Your task to perform on an android device: delete location history Image 0: 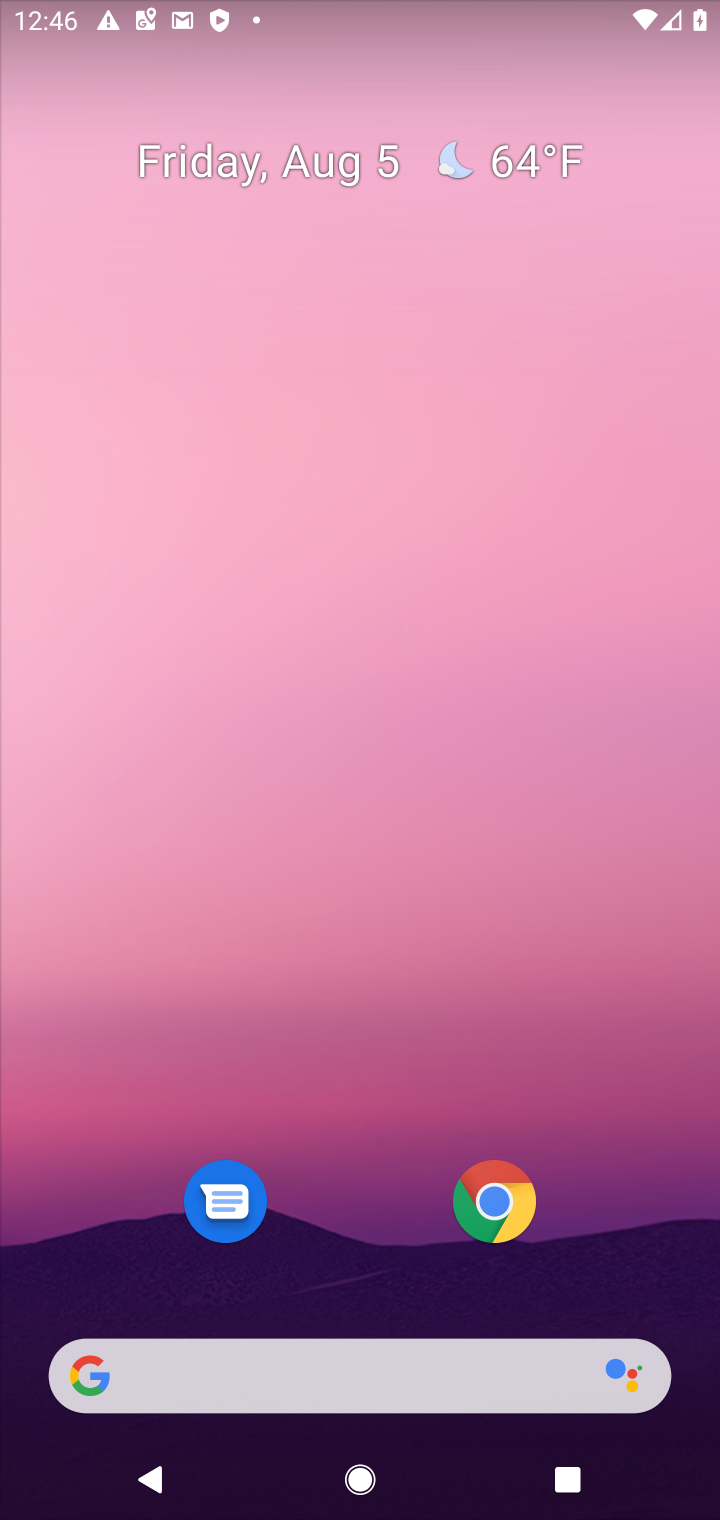
Step 0: drag from (642, 1278) to (601, 348)
Your task to perform on an android device: delete location history Image 1: 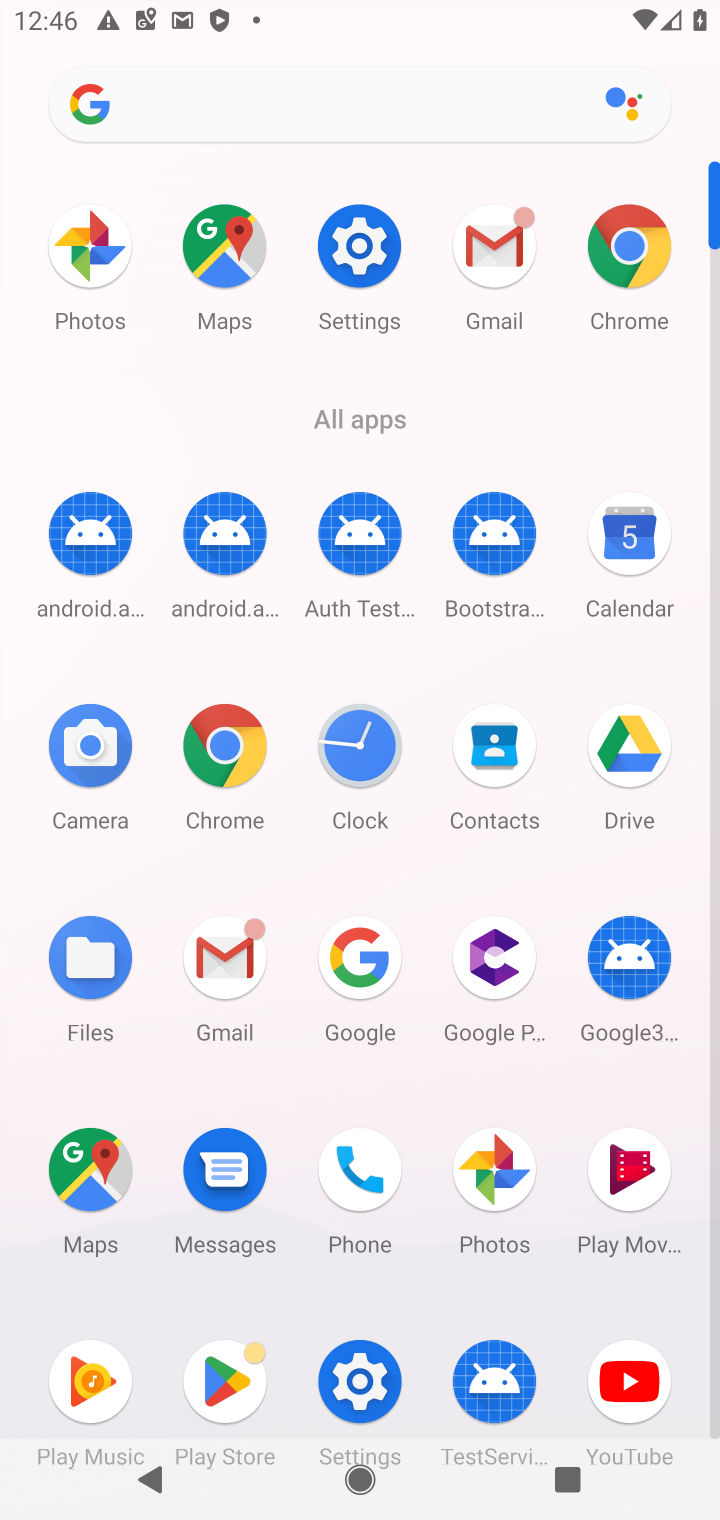
Step 1: click (372, 1366)
Your task to perform on an android device: delete location history Image 2: 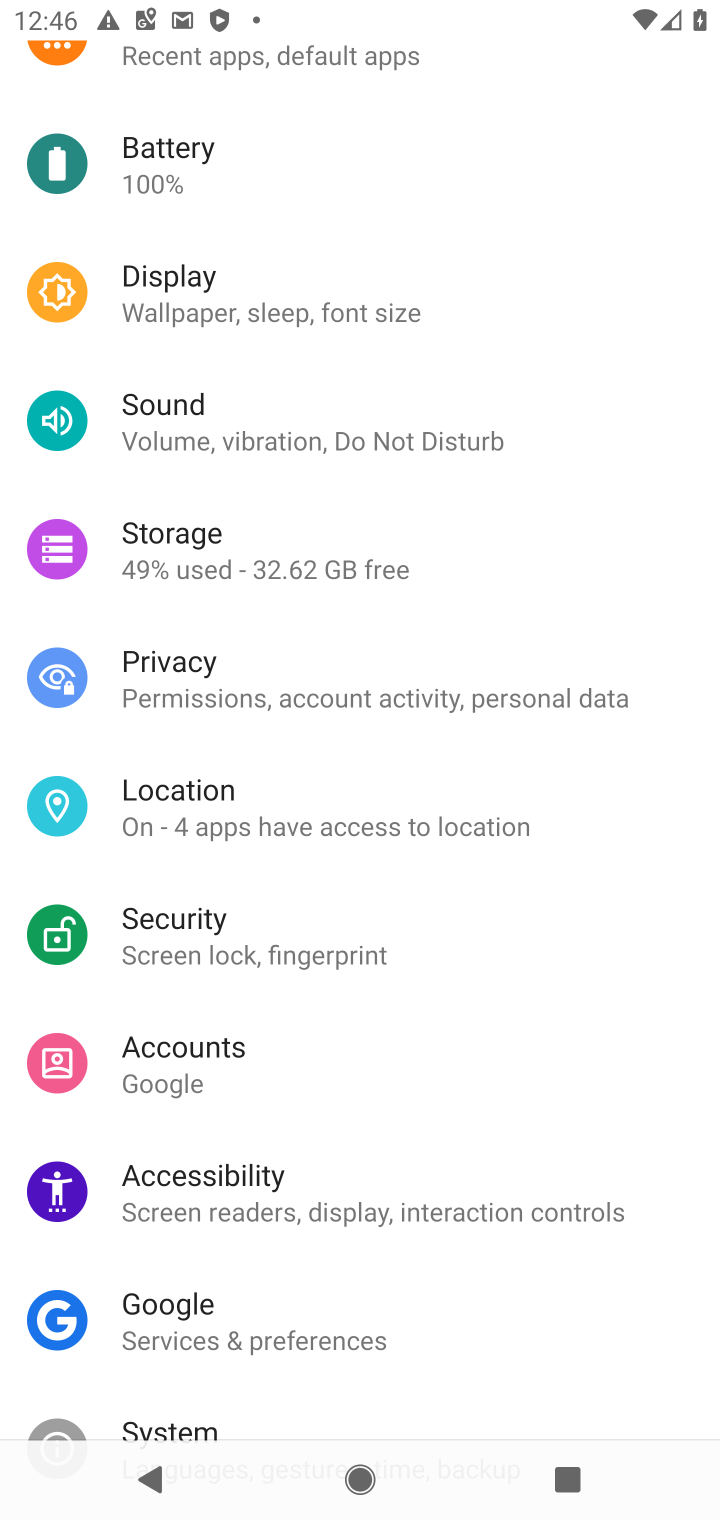
Step 2: click (313, 825)
Your task to perform on an android device: delete location history Image 3: 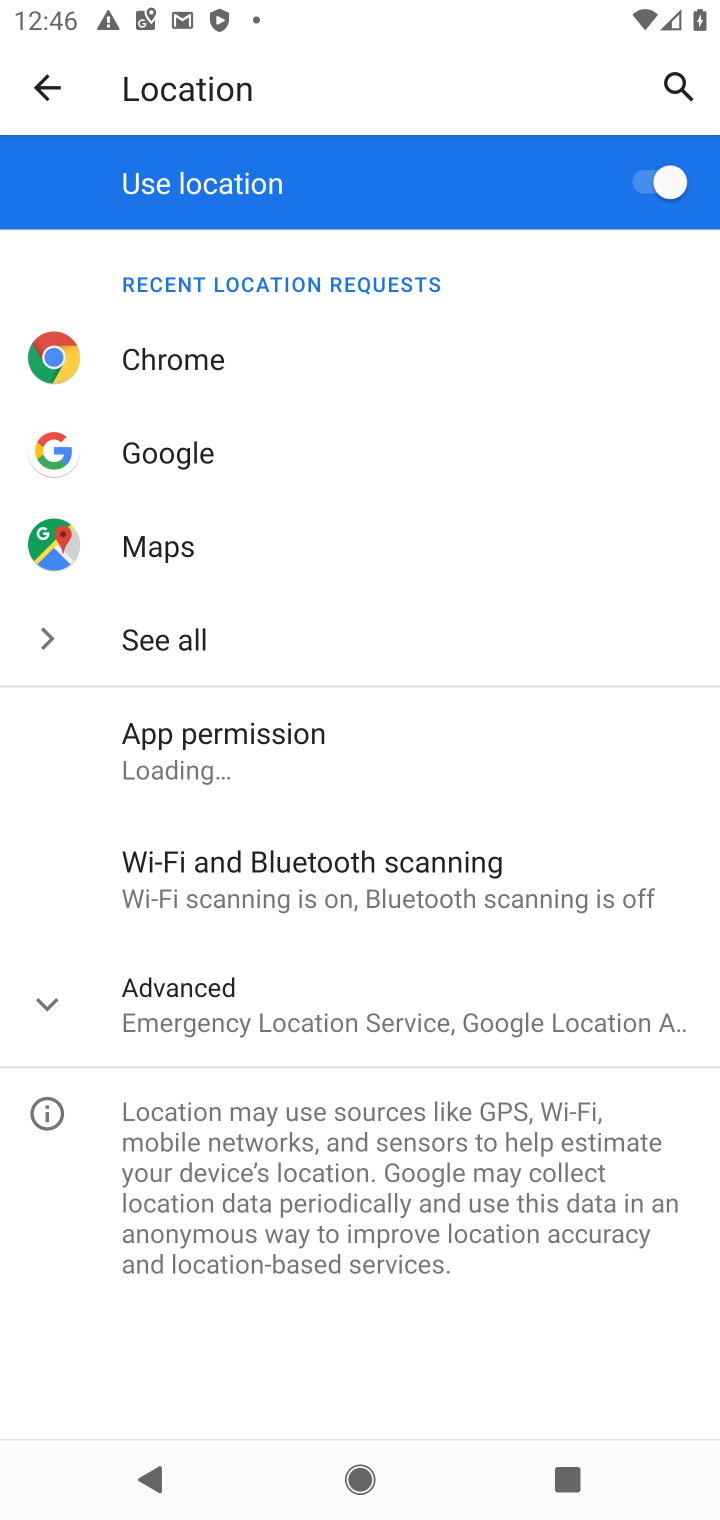
Step 3: click (279, 1023)
Your task to perform on an android device: delete location history Image 4: 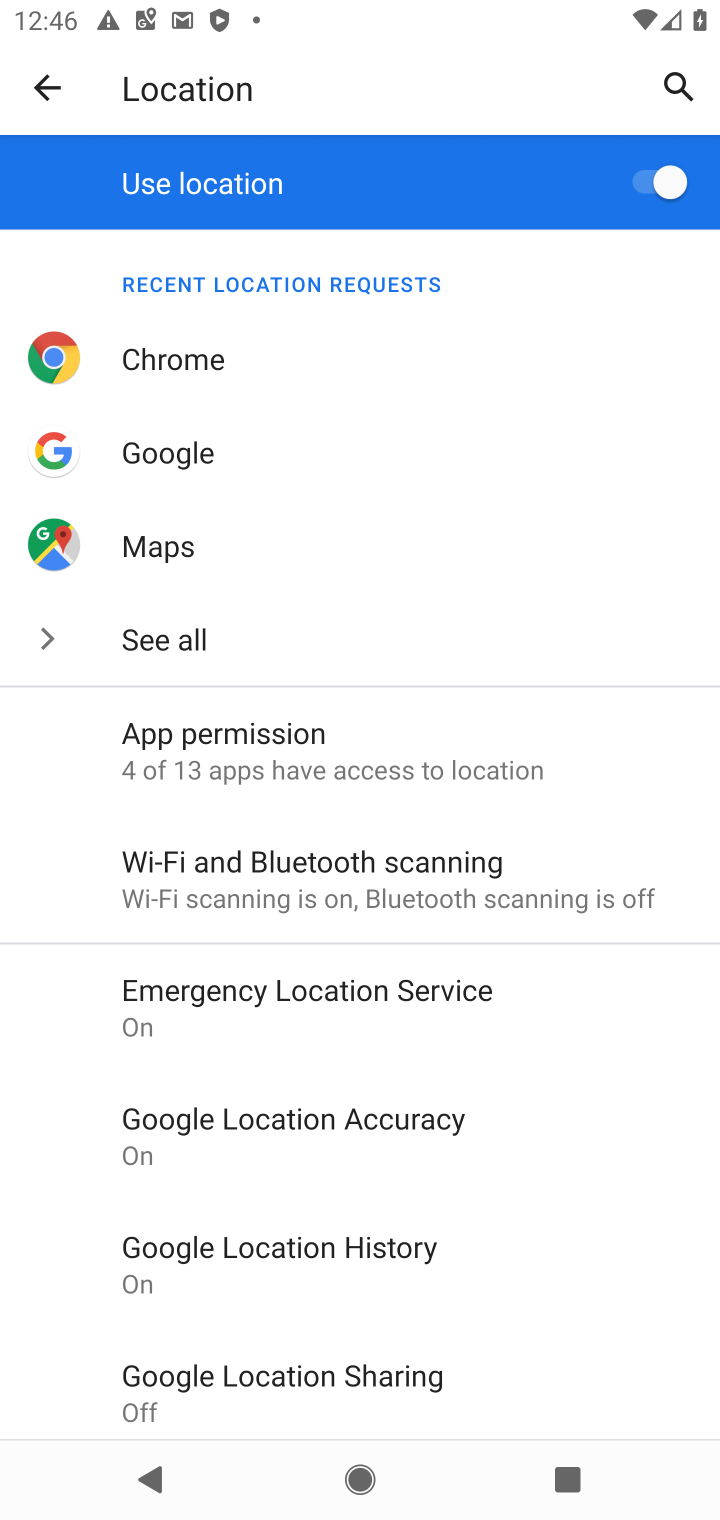
Step 4: click (440, 1241)
Your task to perform on an android device: delete location history Image 5: 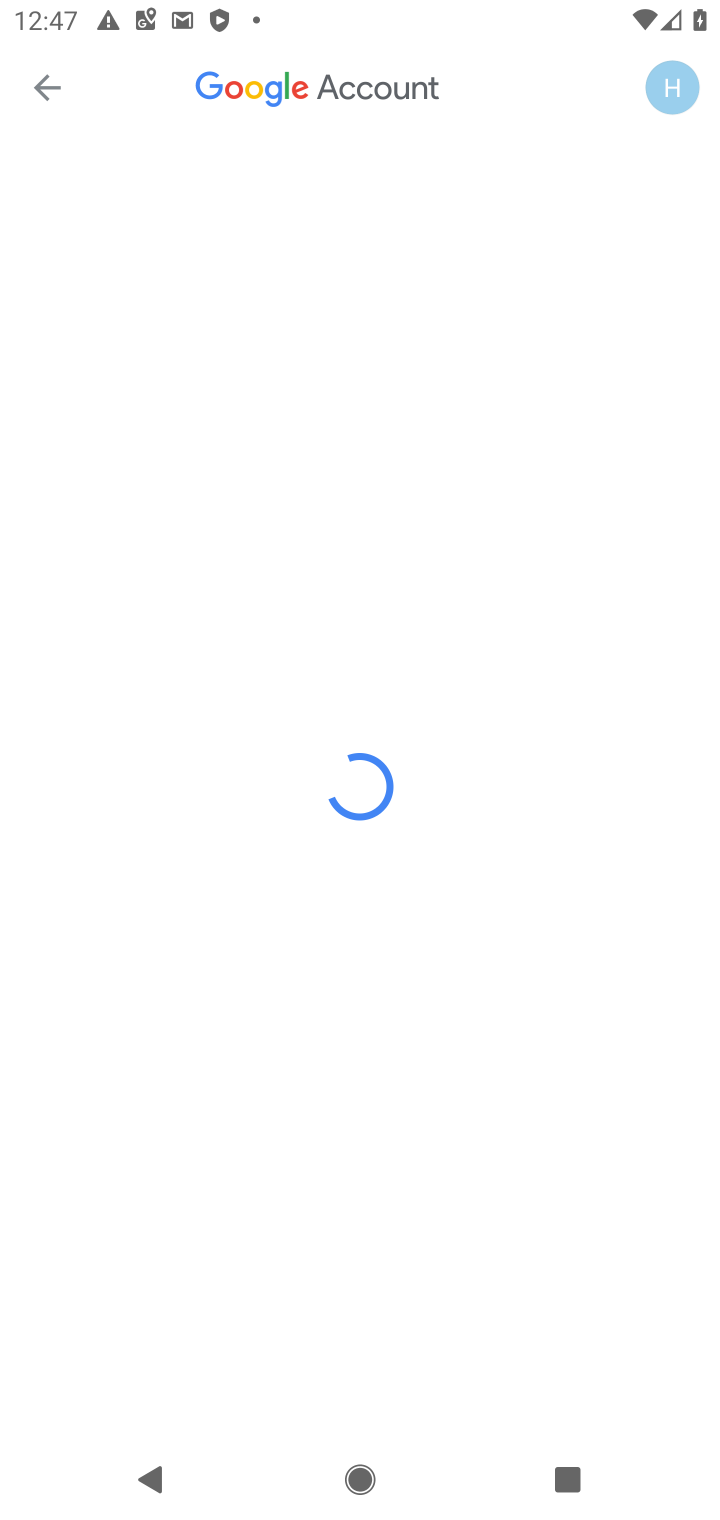
Step 5: click (440, 1253)
Your task to perform on an android device: delete location history Image 6: 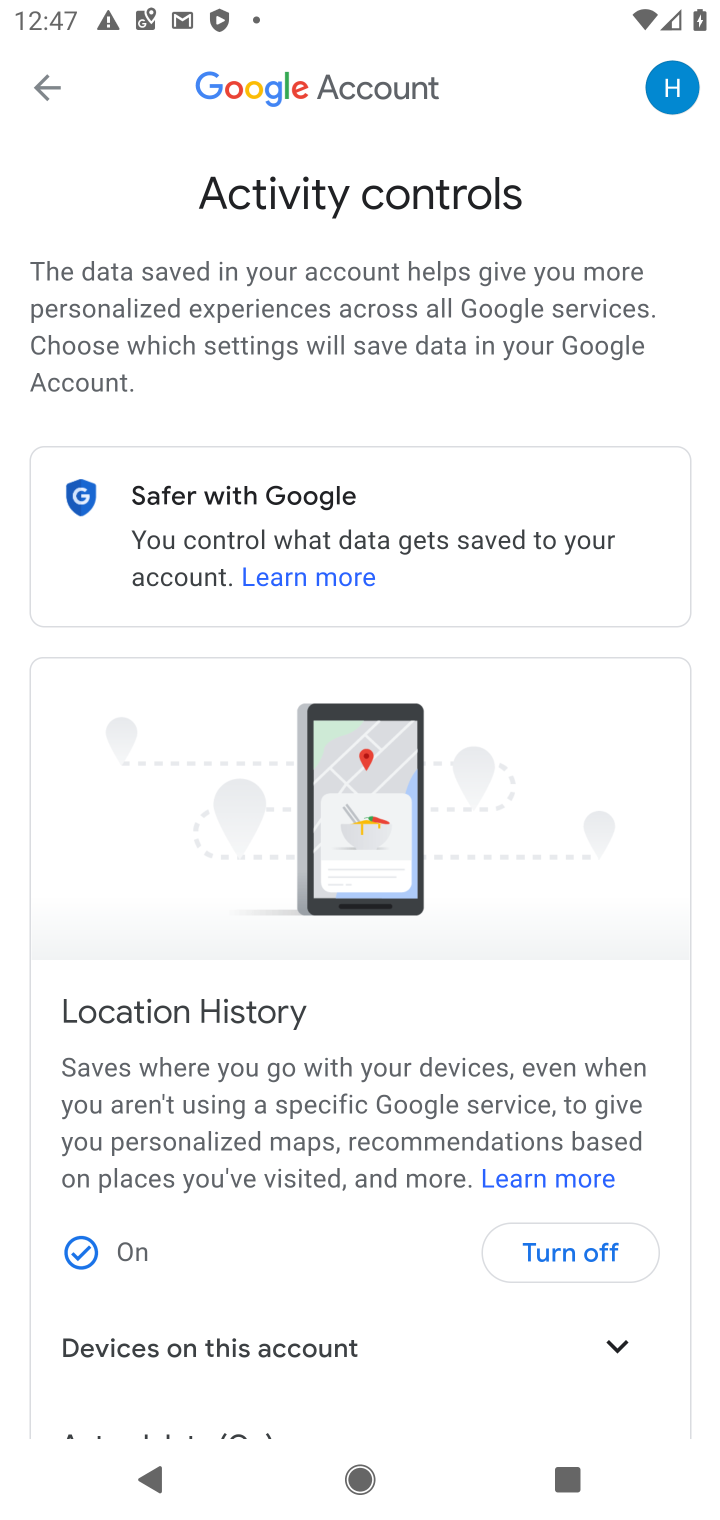
Step 6: drag from (385, 1312) to (469, 972)
Your task to perform on an android device: delete location history Image 7: 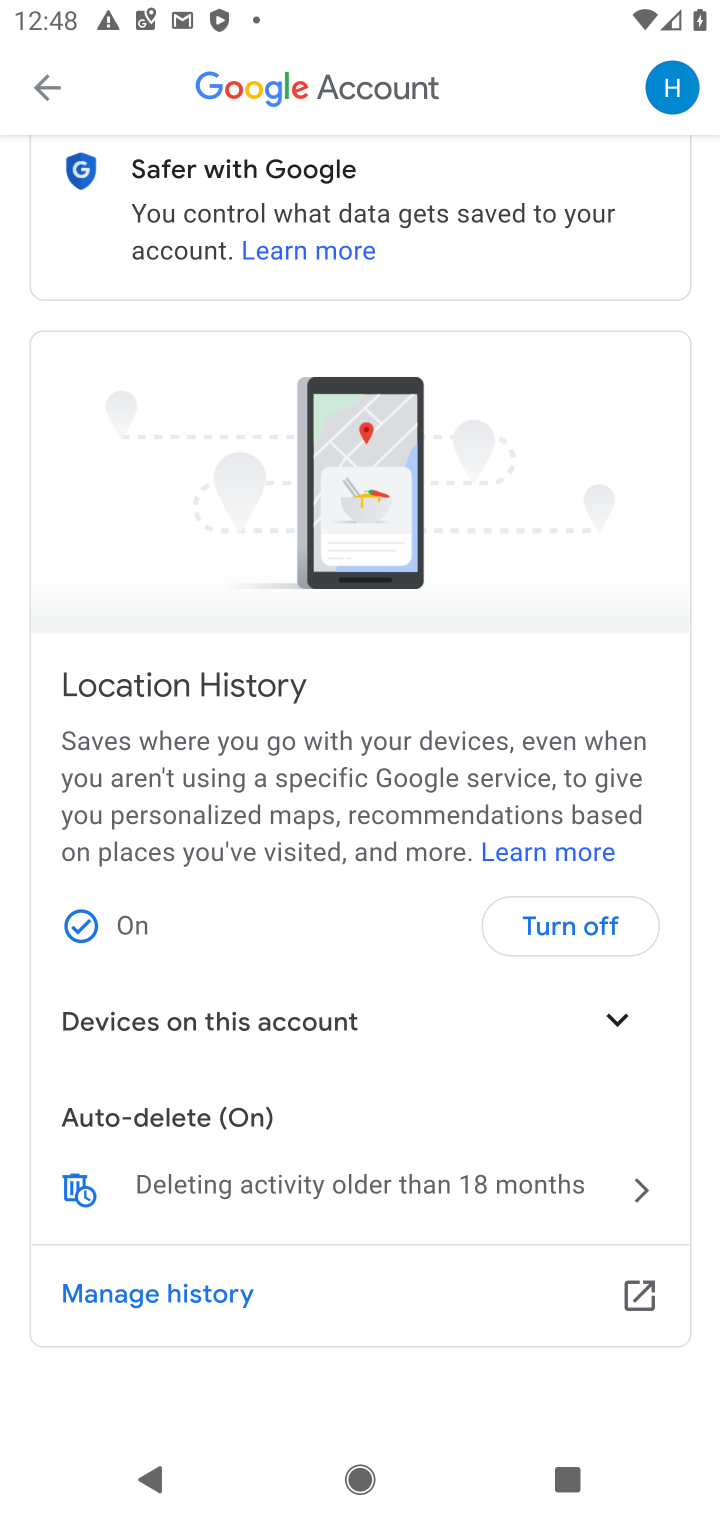
Step 7: click (180, 1292)
Your task to perform on an android device: delete location history Image 8: 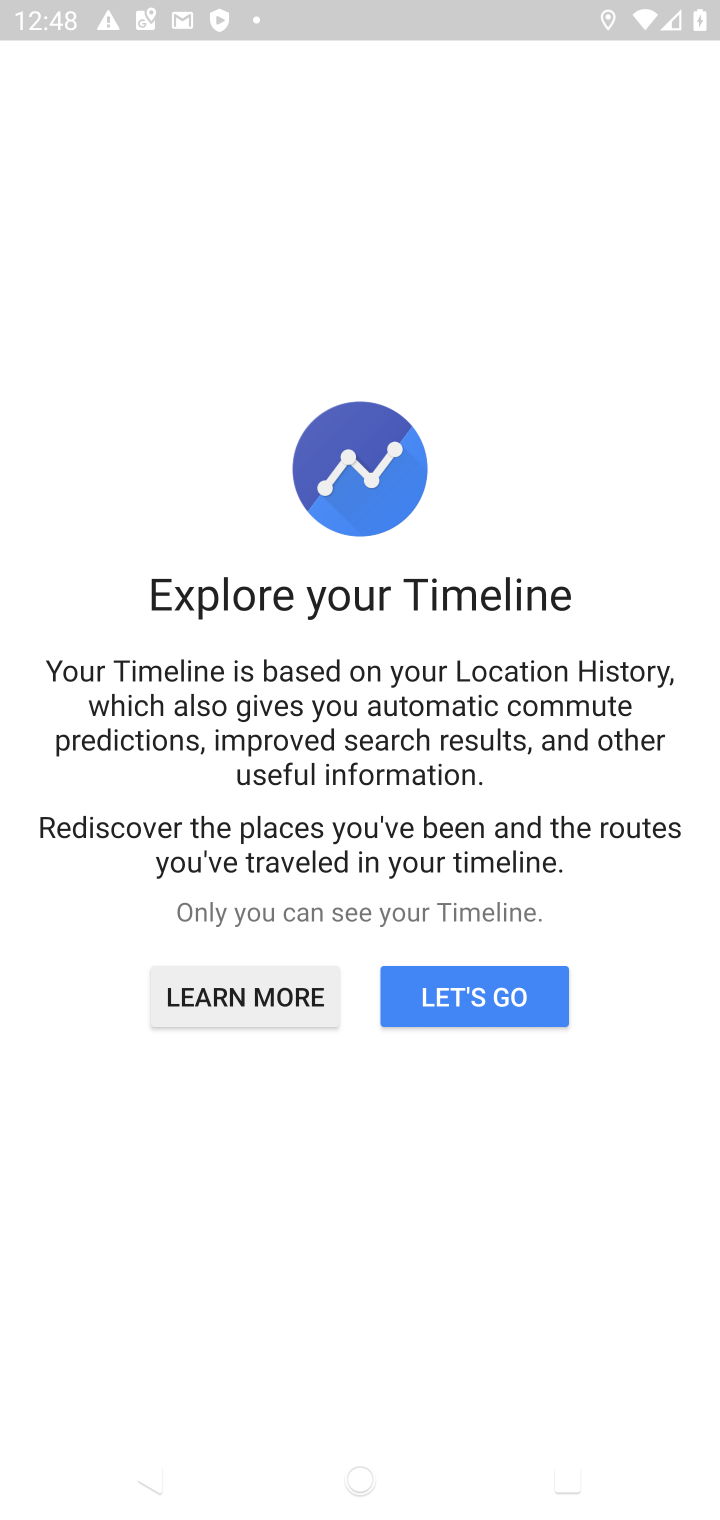
Step 8: click (471, 997)
Your task to perform on an android device: delete location history Image 9: 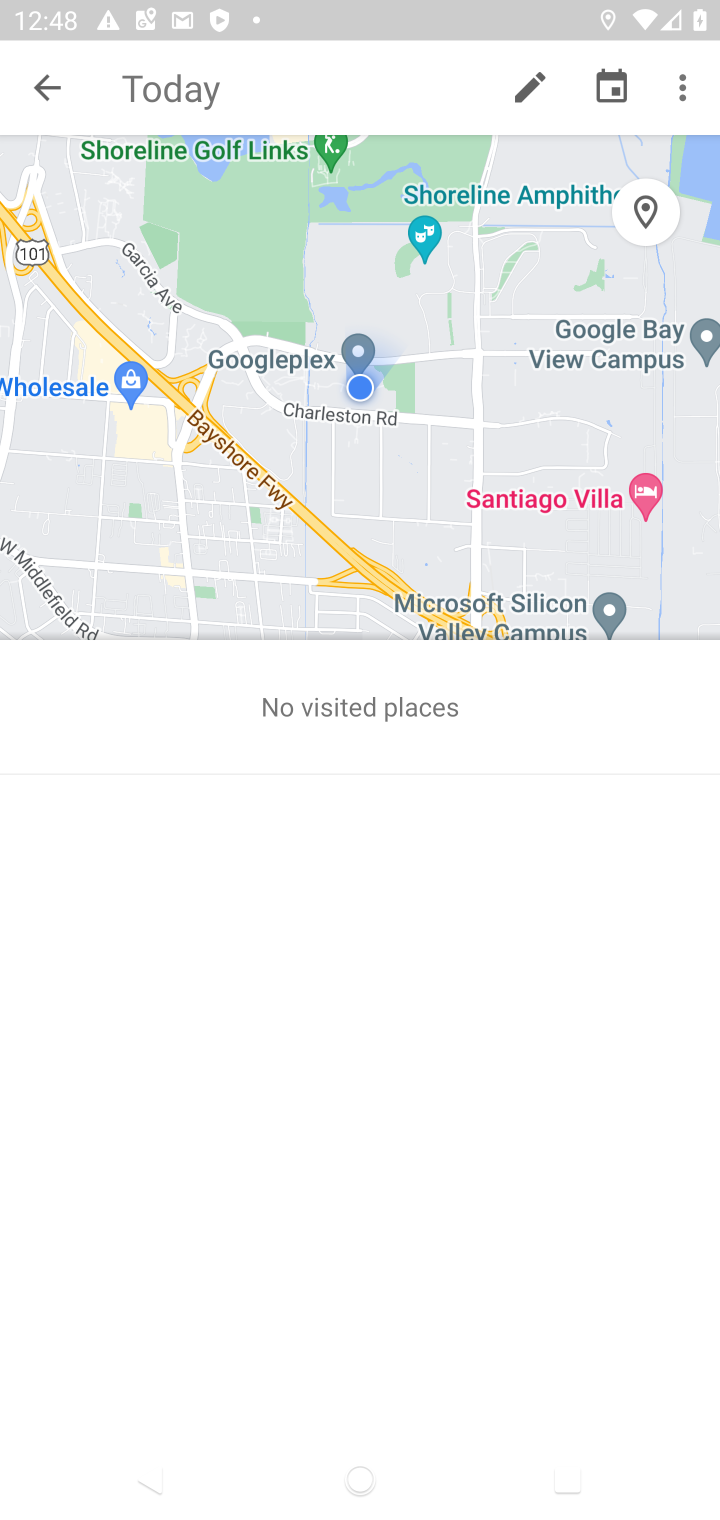
Step 9: click (683, 82)
Your task to perform on an android device: delete location history Image 10: 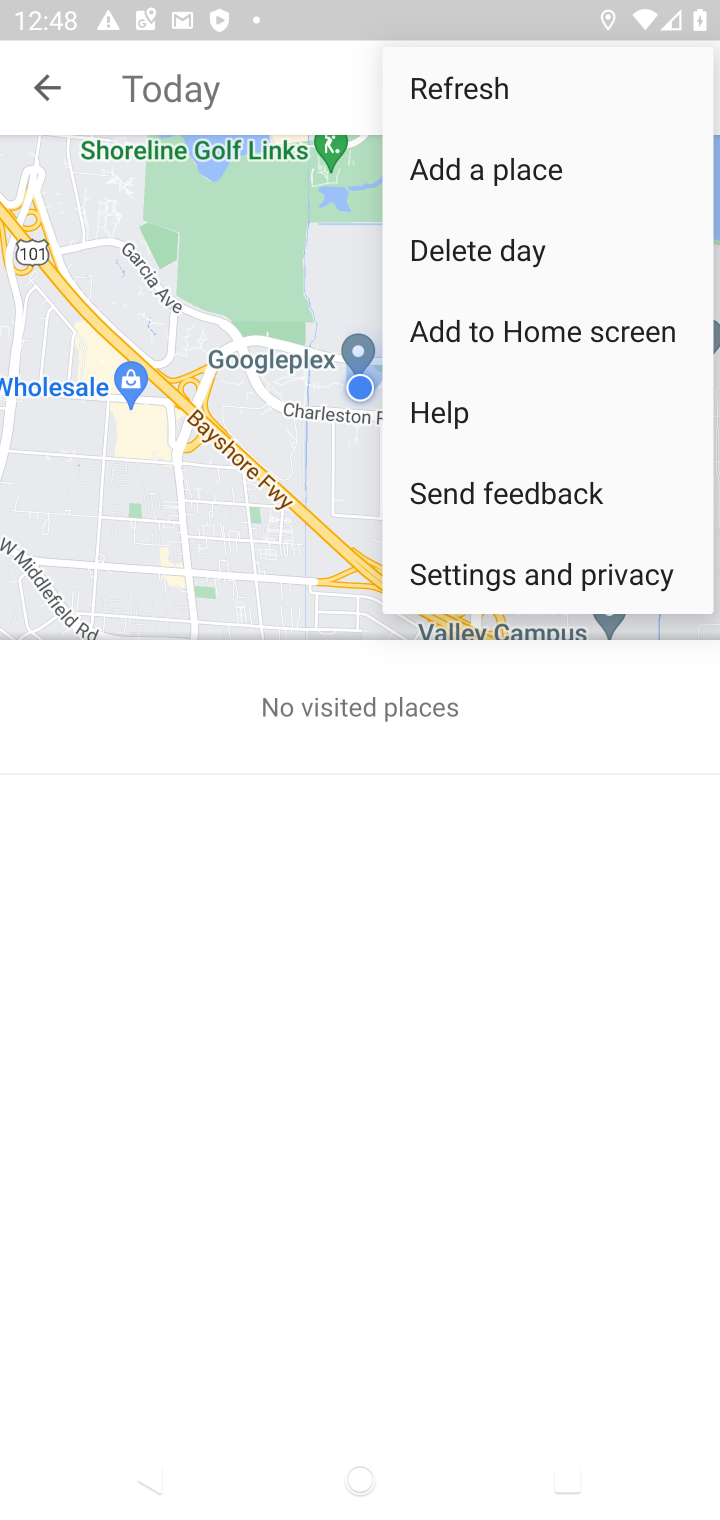
Step 10: click (516, 265)
Your task to perform on an android device: delete location history Image 11: 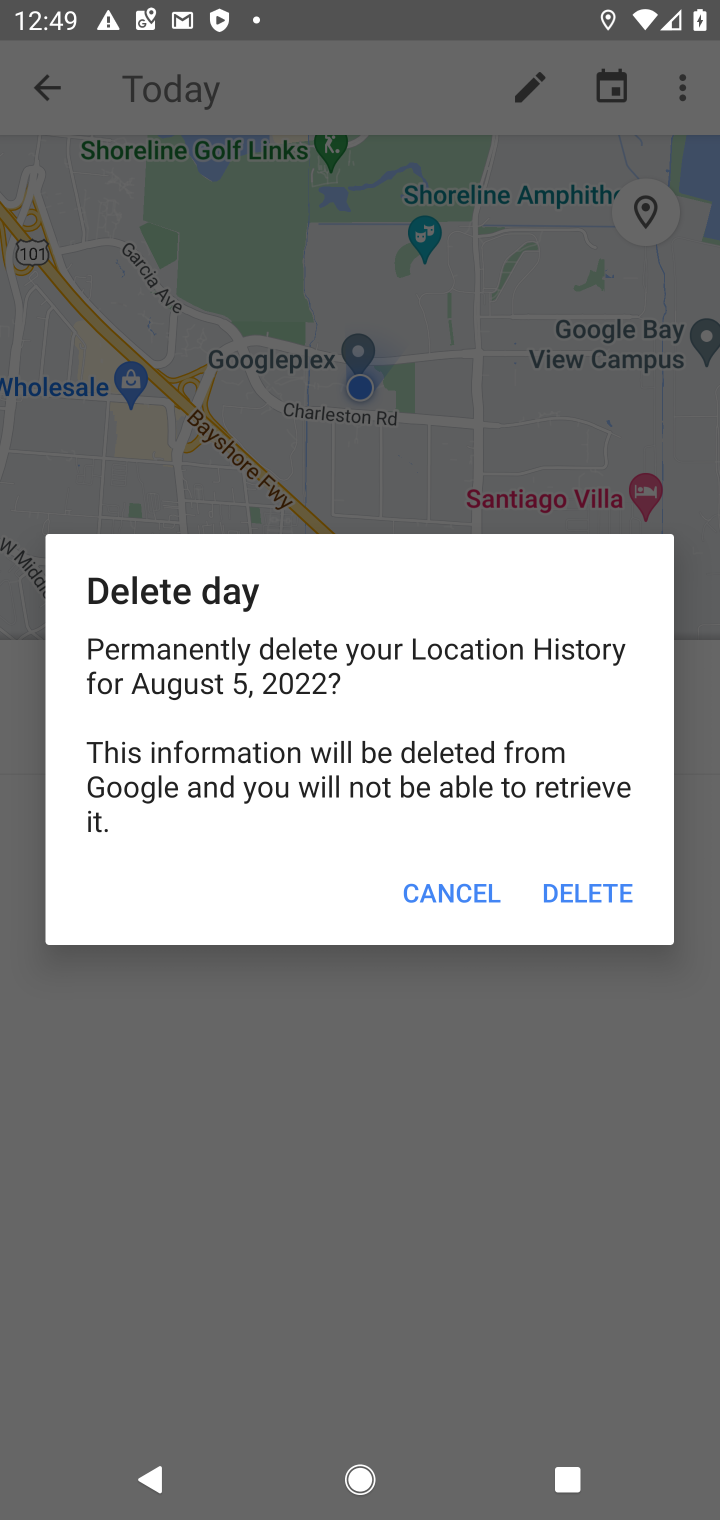
Step 11: click (557, 913)
Your task to perform on an android device: delete location history Image 12: 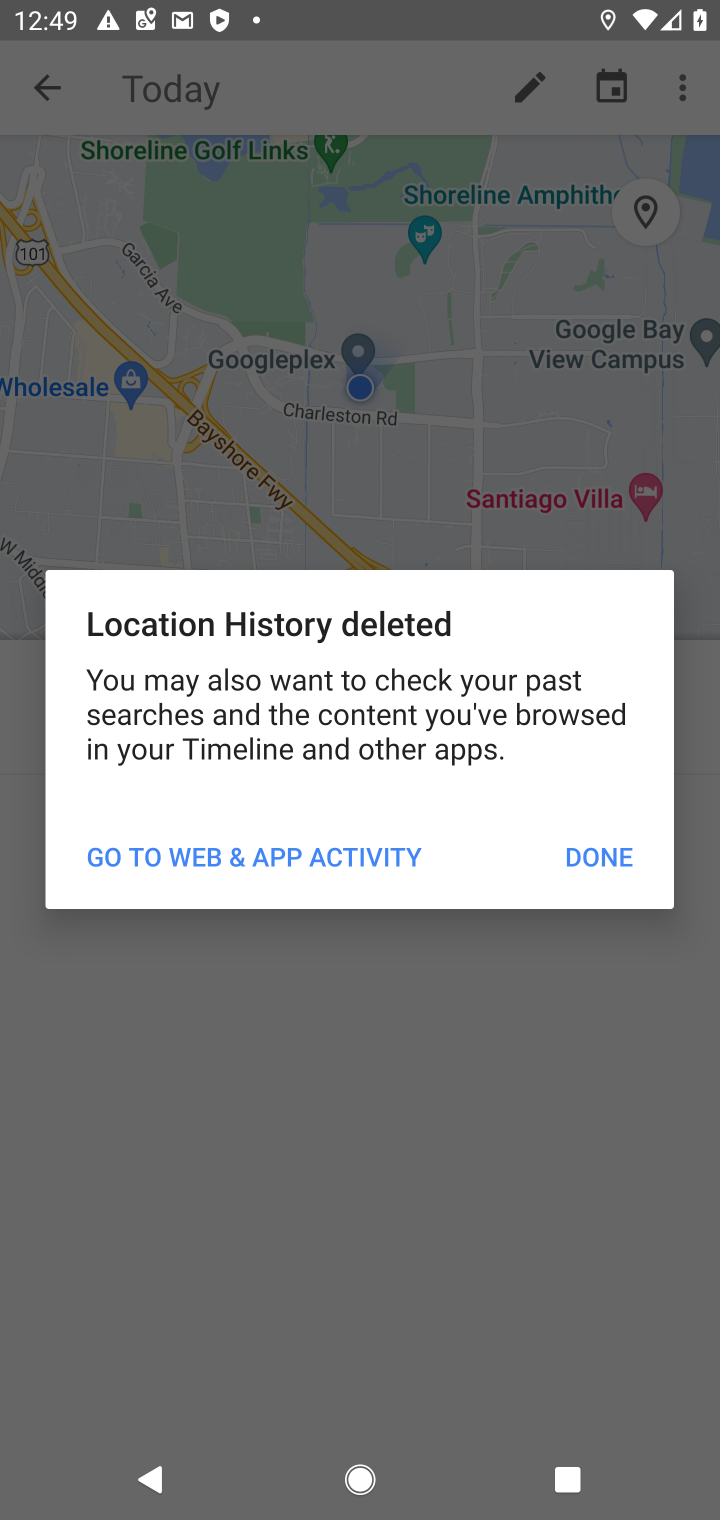
Step 12: click (605, 854)
Your task to perform on an android device: delete location history Image 13: 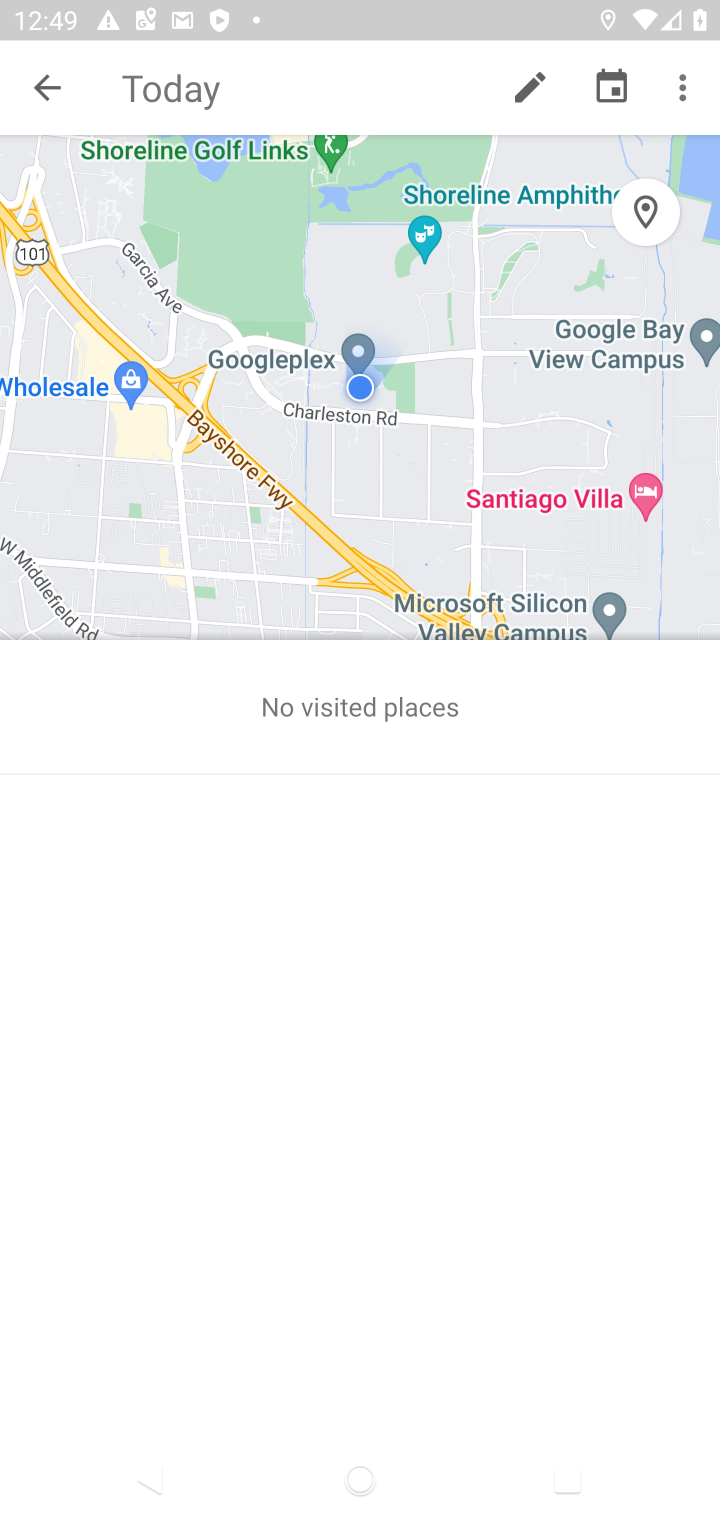
Step 13: task complete